Your task to perform on an android device: change notification settings in the gmail app Image 0: 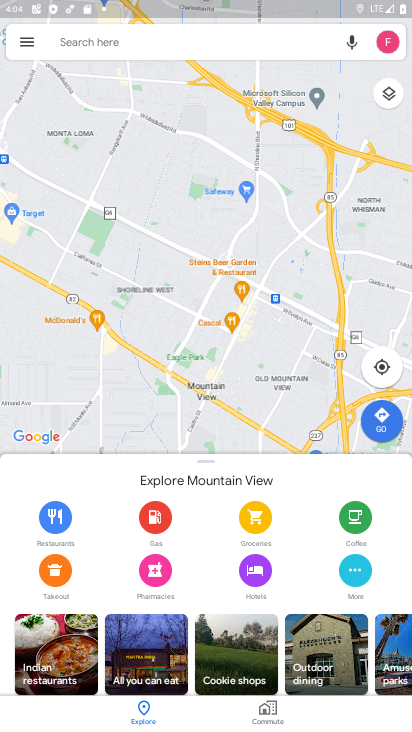
Step 0: drag from (148, 675) to (146, 602)
Your task to perform on an android device: change notification settings in the gmail app Image 1: 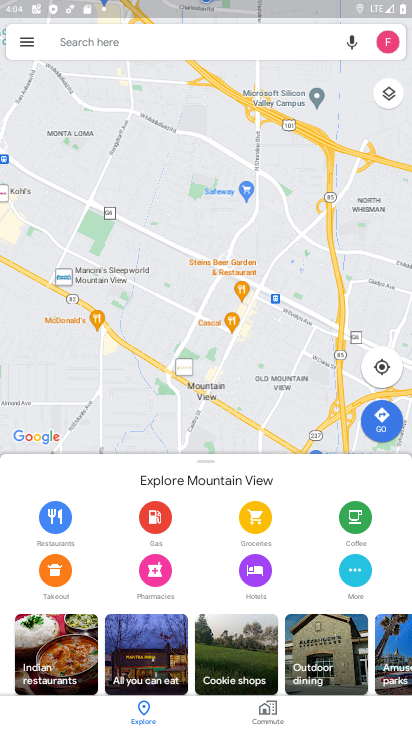
Step 1: press home button
Your task to perform on an android device: change notification settings in the gmail app Image 2: 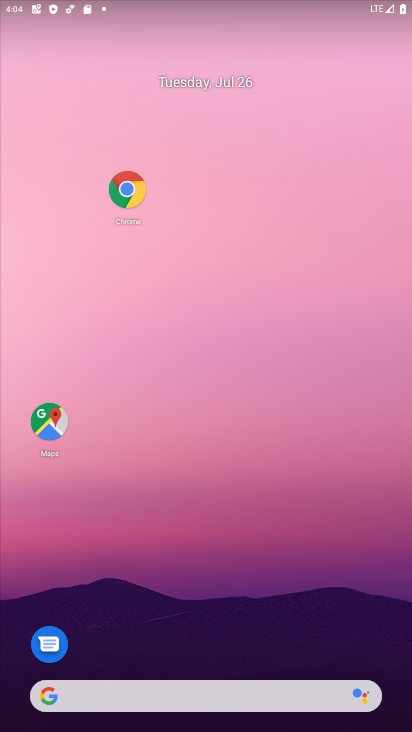
Step 2: drag from (184, 687) to (148, 156)
Your task to perform on an android device: change notification settings in the gmail app Image 3: 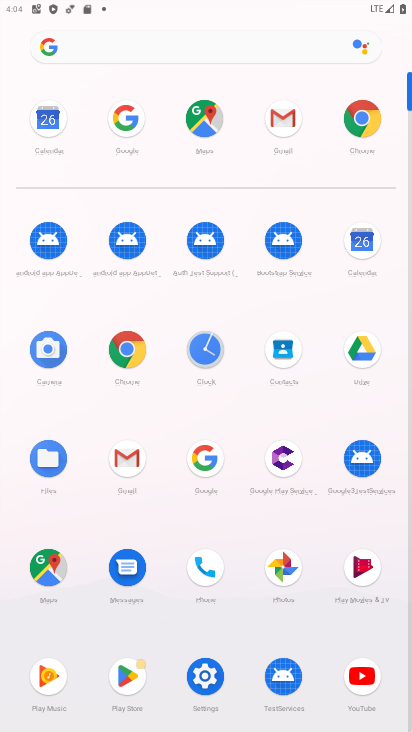
Step 3: click (138, 455)
Your task to perform on an android device: change notification settings in the gmail app Image 4: 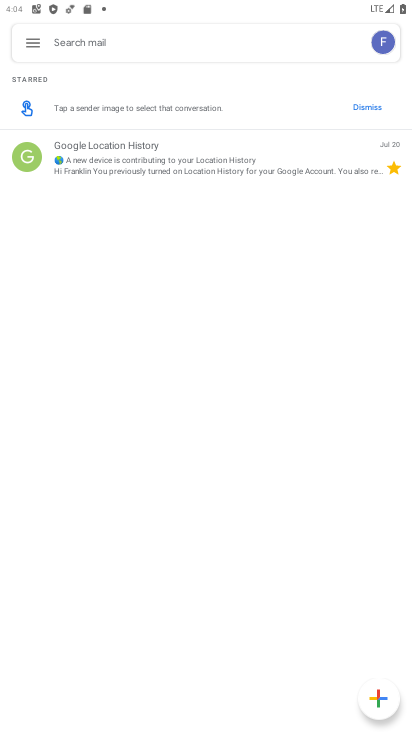
Step 4: click (36, 39)
Your task to perform on an android device: change notification settings in the gmail app Image 5: 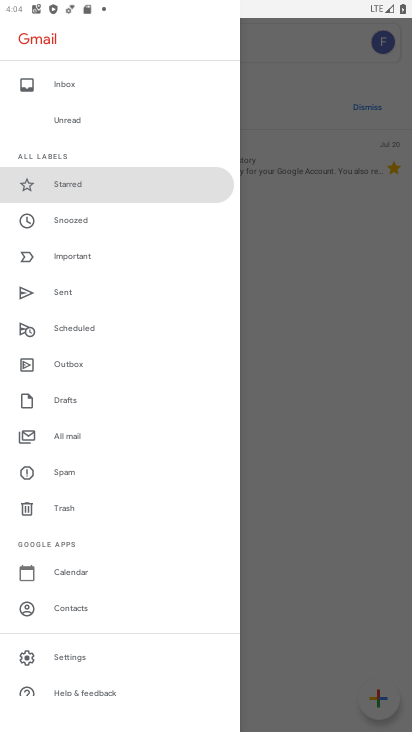
Step 5: click (71, 652)
Your task to perform on an android device: change notification settings in the gmail app Image 6: 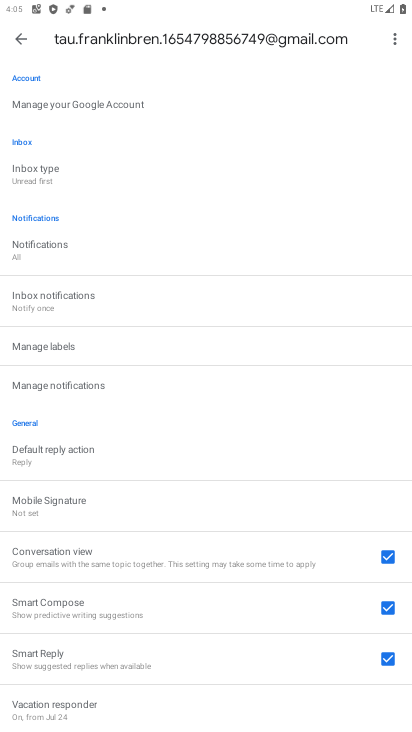
Step 6: click (35, 379)
Your task to perform on an android device: change notification settings in the gmail app Image 7: 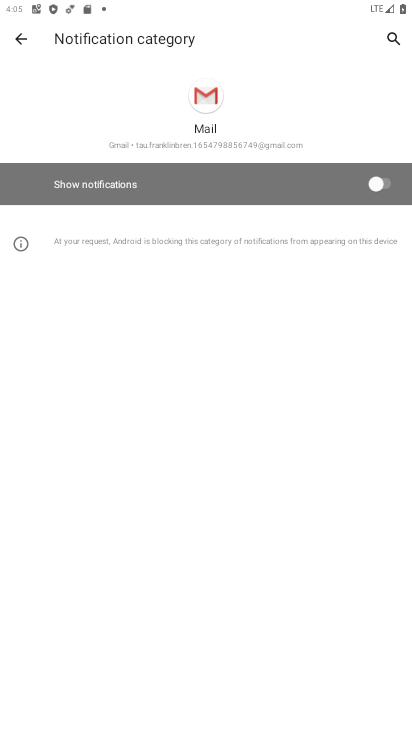
Step 7: click (17, 50)
Your task to perform on an android device: change notification settings in the gmail app Image 8: 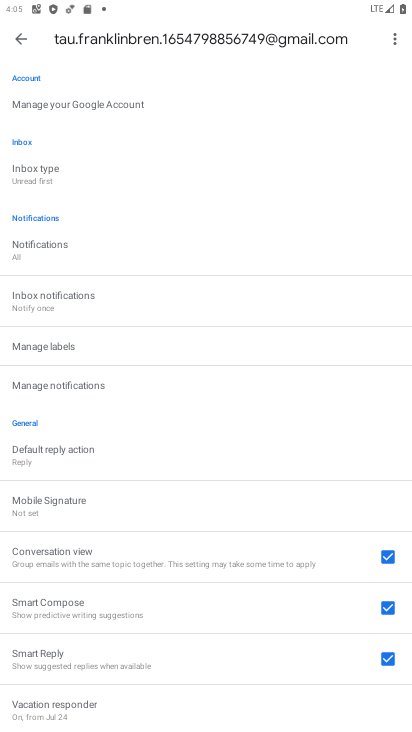
Step 8: click (33, 246)
Your task to perform on an android device: change notification settings in the gmail app Image 9: 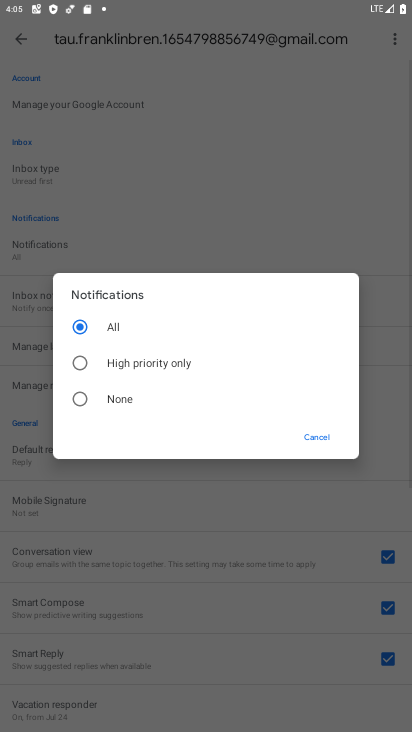
Step 9: click (125, 361)
Your task to perform on an android device: change notification settings in the gmail app Image 10: 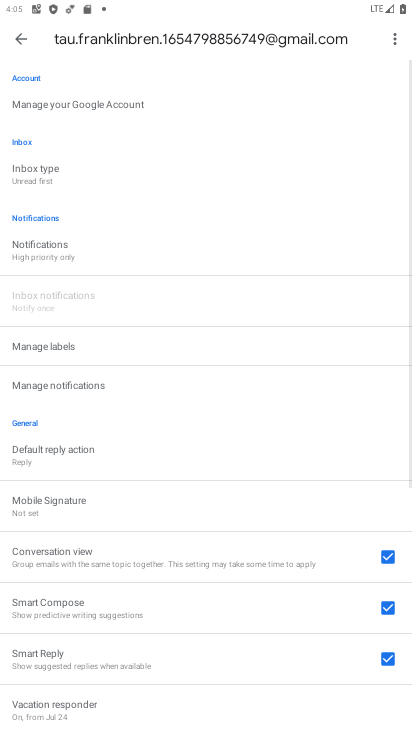
Step 10: task complete